Your task to perform on an android device: What's on my calendar today? Image 0: 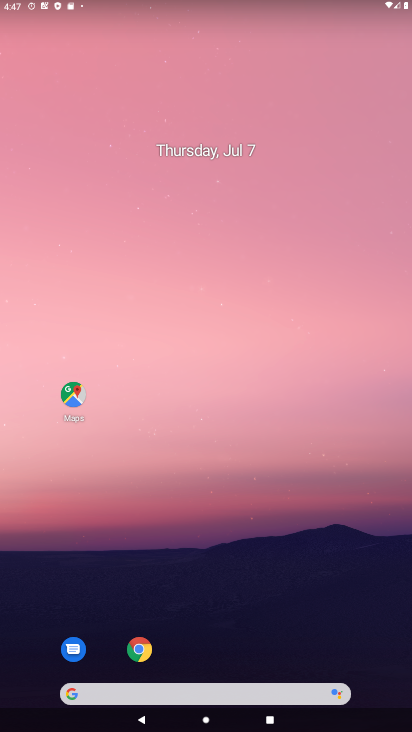
Step 0: drag from (366, 666) to (7, 59)
Your task to perform on an android device: What's on my calendar today? Image 1: 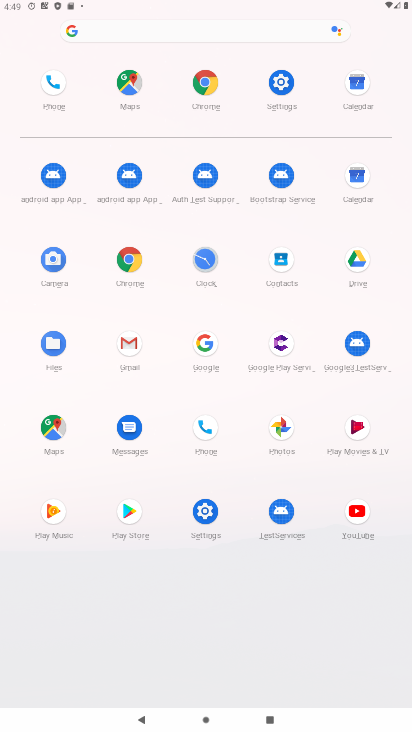
Step 1: click (352, 84)
Your task to perform on an android device: What's on my calendar today? Image 2: 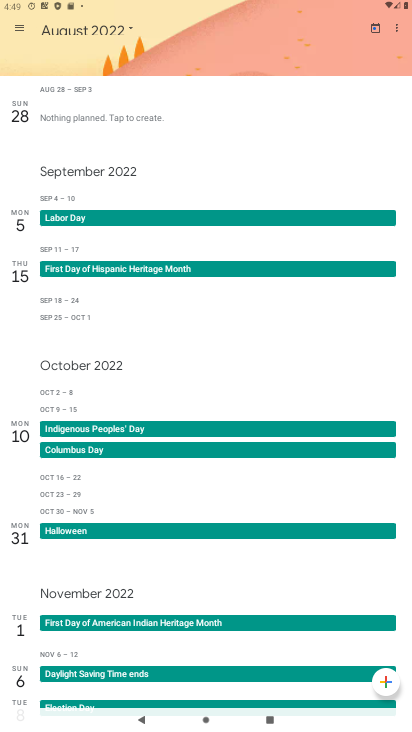
Step 2: task complete